Your task to perform on an android device: turn off notifications in google photos Image 0: 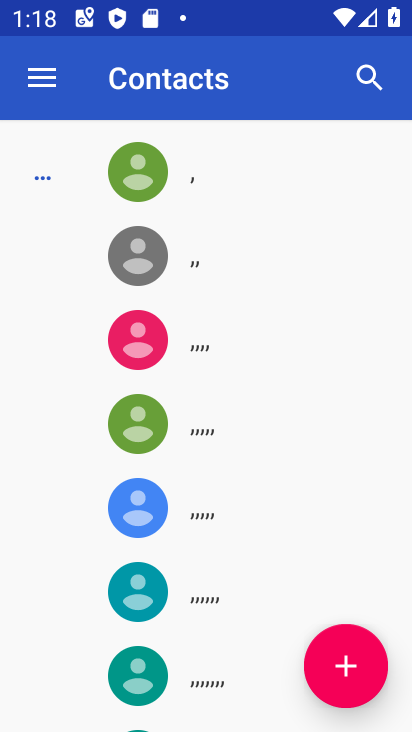
Step 0: press home button
Your task to perform on an android device: turn off notifications in google photos Image 1: 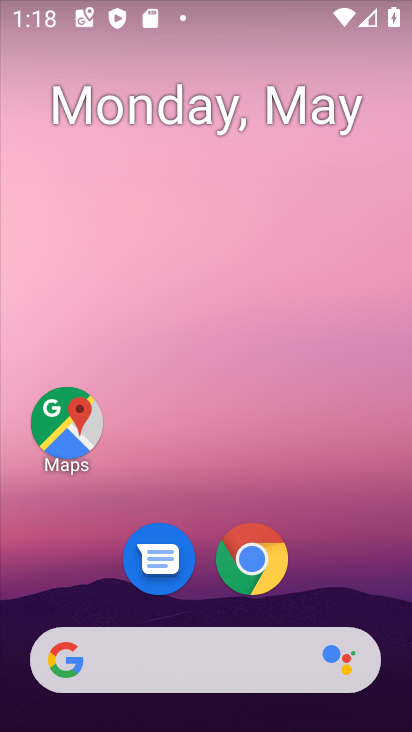
Step 1: drag from (229, 714) to (330, 104)
Your task to perform on an android device: turn off notifications in google photos Image 2: 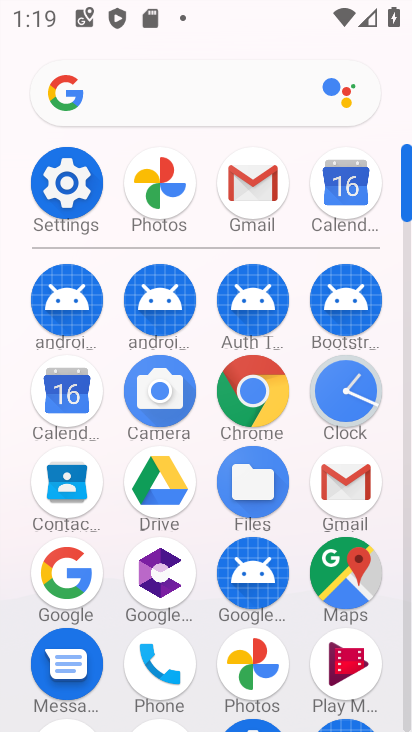
Step 2: click (160, 172)
Your task to perform on an android device: turn off notifications in google photos Image 3: 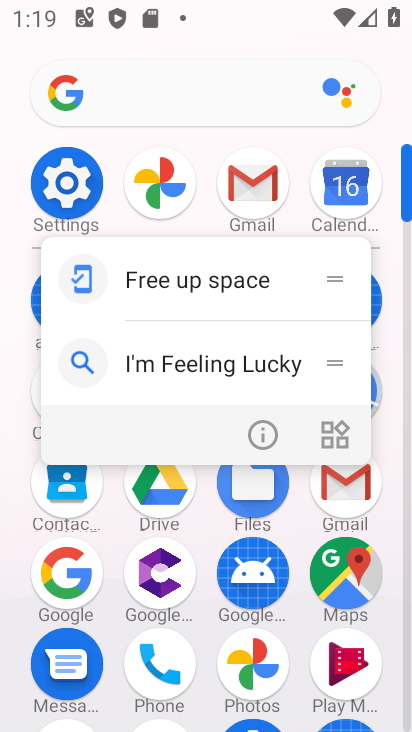
Step 3: click (259, 428)
Your task to perform on an android device: turn off notifications in google photos Image 4: 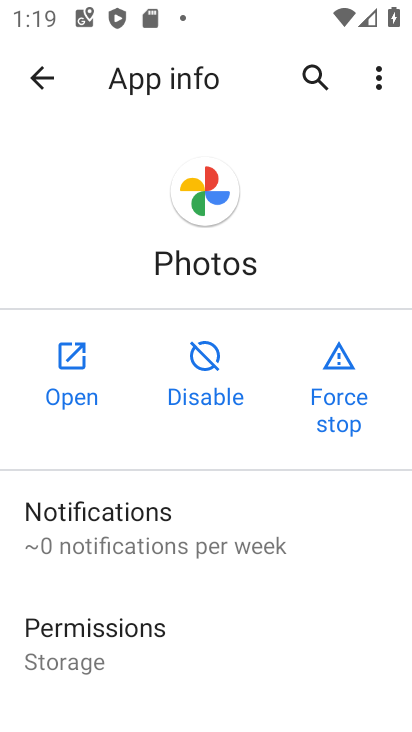
Step 4: click (238, 523)
Your task to perform on an android device: turn off notifications in google photos Image 5: 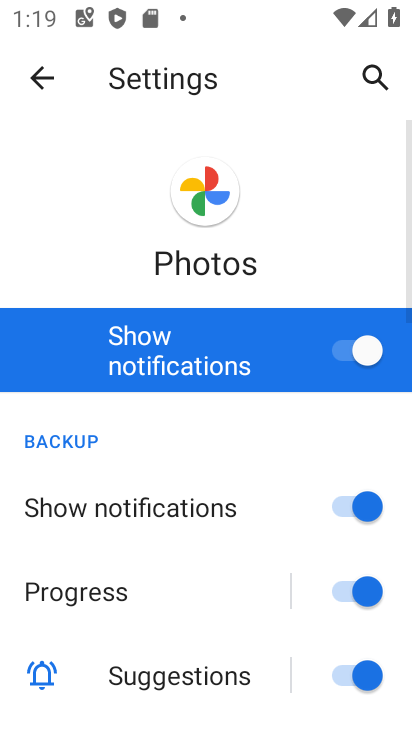
Step 5: click (357, 345)
Your task to perform on an android device: turn off notifications in google photos Image 6: 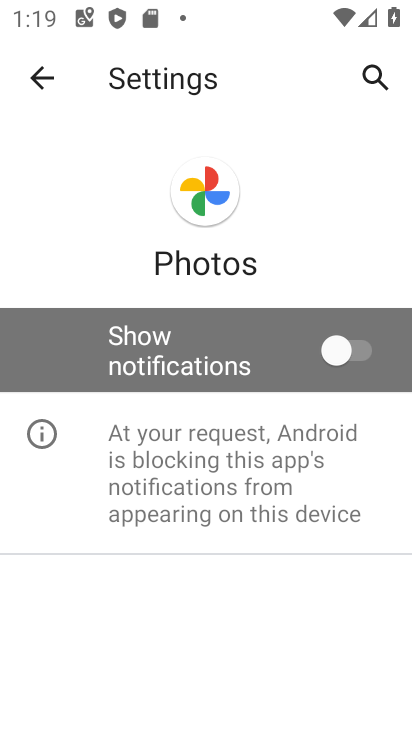
Step 6: task complete